Your task to perform on an android device: Open privacy settings Image 0: 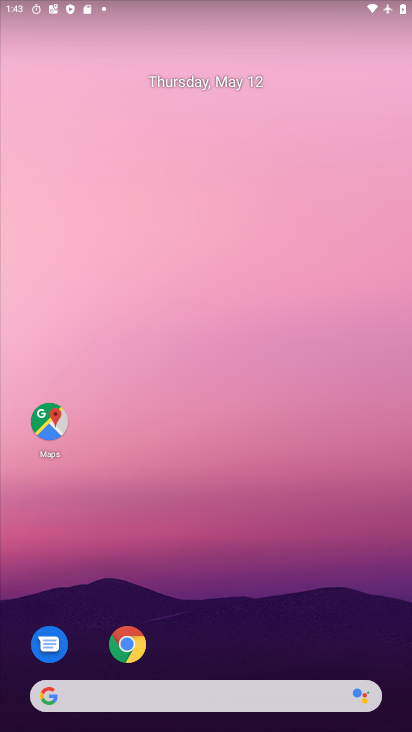
Step 0: drag from (246, 602) to (218, 137)
Your task to perform on an android device: Open privacy settings Image 1: 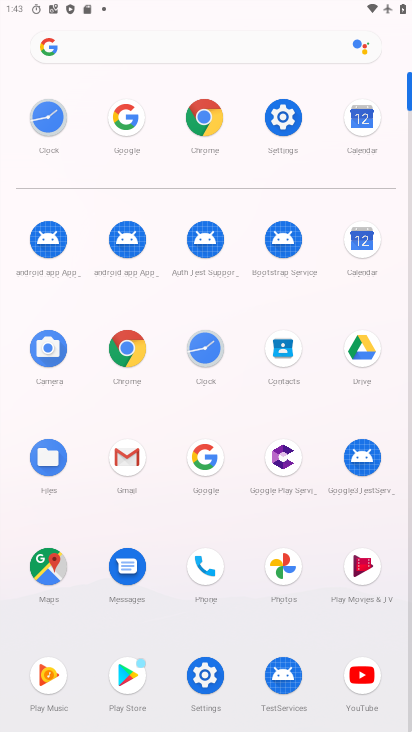
Step 1: click (284, 125)
Your task to perform on an android device: Open privacy settings Image 2: 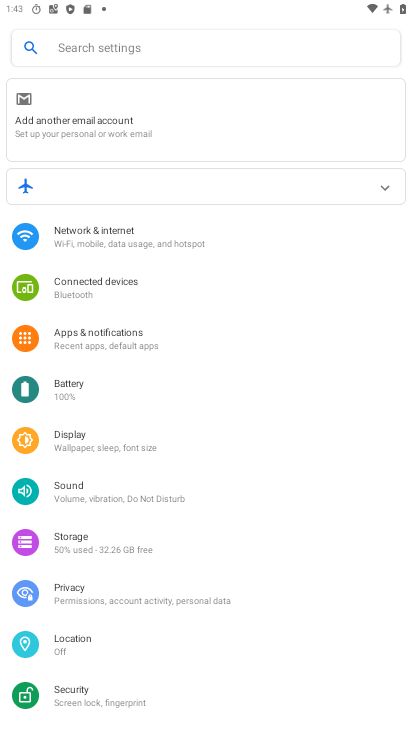
Step 2: task complete